Your task to perform on an android device: Go to location settings Image 0: 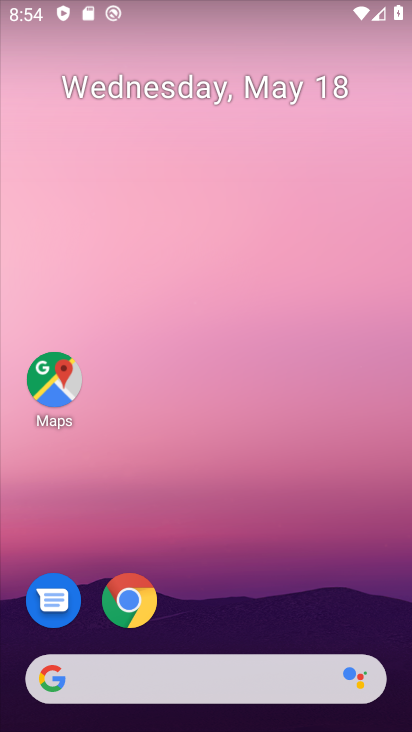
Step 0: drag from (7, 606) to (182, 159)
Your task to perform on an android device: Go to location settings Image 1: 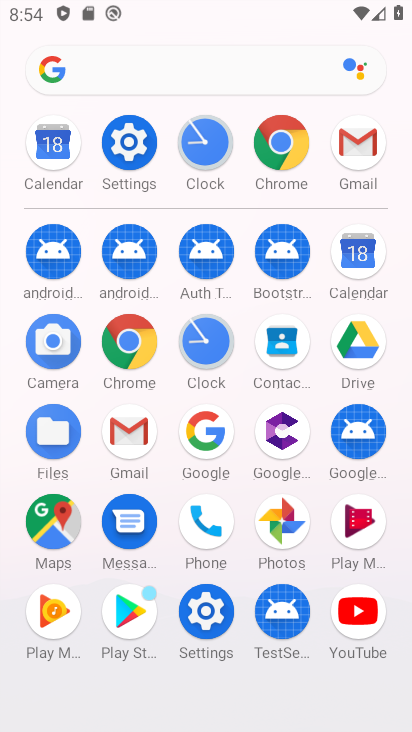
Step 1: click (120, 141)
Your task to perform on an android device: Go to location settings Image 2: 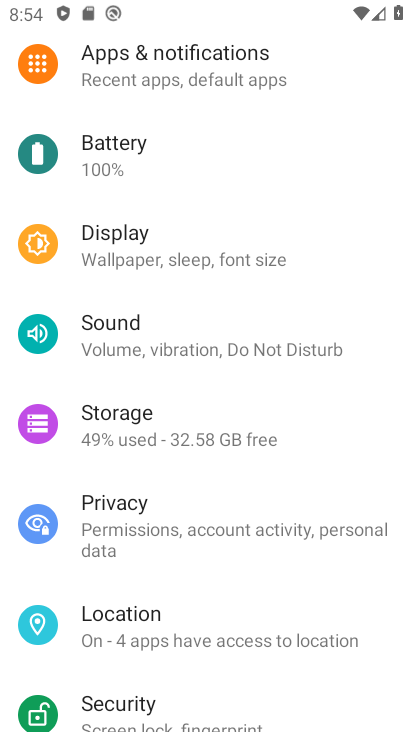
Step 2: click (180, 614)
Your task to perform on an android device: Go to location settings Image 3: 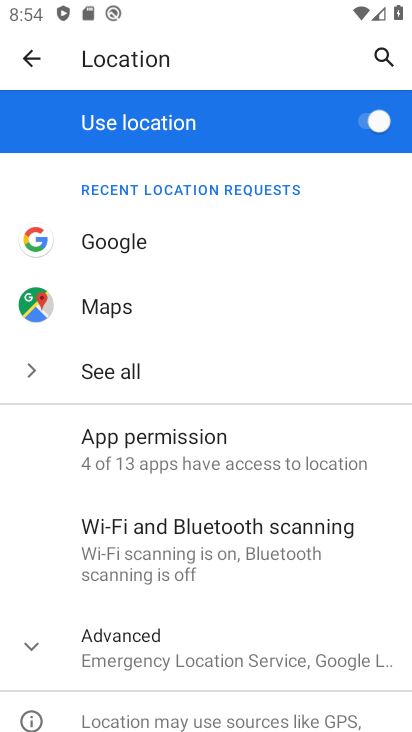
Step 3: task complete